Your task to perform on an android device: Go to settings Image 0: 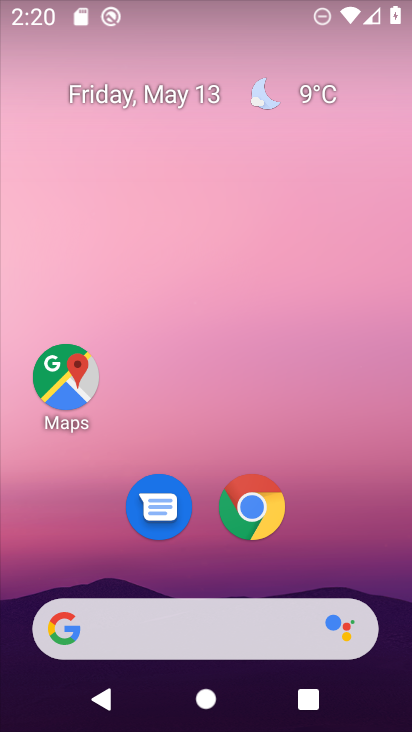
Step 0: drag from (349, 518) to (262, 44)
Your task to perform on an android device: Go to settings Image 1: 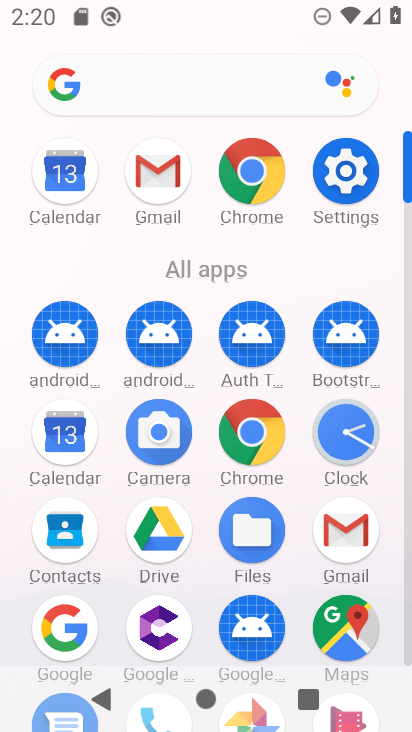
Step 1: click (343, 166)
Your task to perform on an android device: Go to settings Image 2: 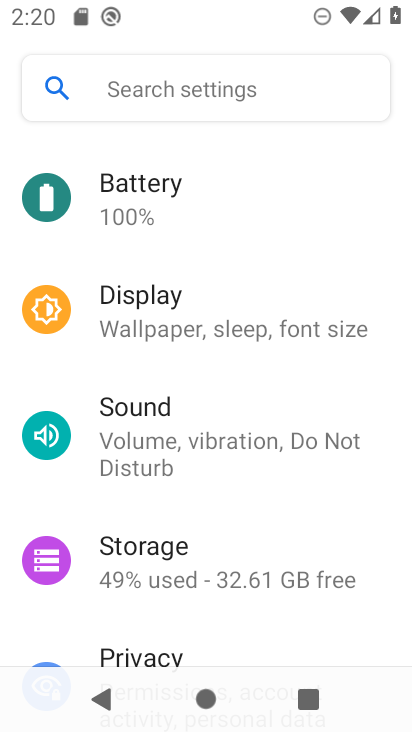
Step 2: task complete